Your task to perform on an android device: Look up the best rated gaming chairs on Target. Image 0: 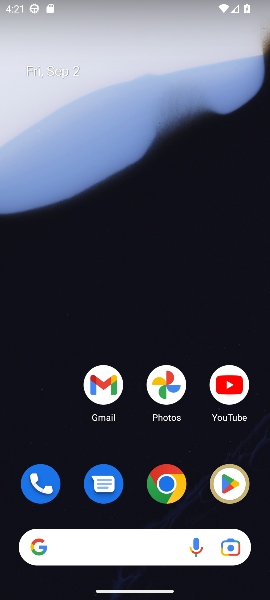
Step 0: click (161, 484)
Your task to perform on an android device: Look up the best rated gaming chairs on Target. Image 1: 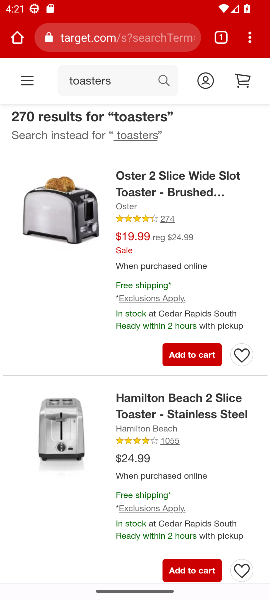
Step 1: click (147, 36)
Your task to perform on an android device: Look up the best rated gaming chairs on Target. Image 2: 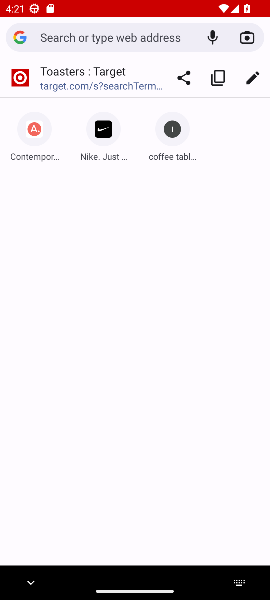
Step 2: press back button
Your task to perform on an android device: Look up the best rated gaming chairs on Target. Image 3: 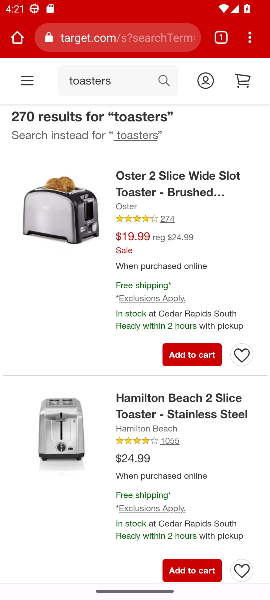
Step 3: click (161, 80)
Your task to perform on an android device: Look up the best rated gaming chairs on Target. Image 4: 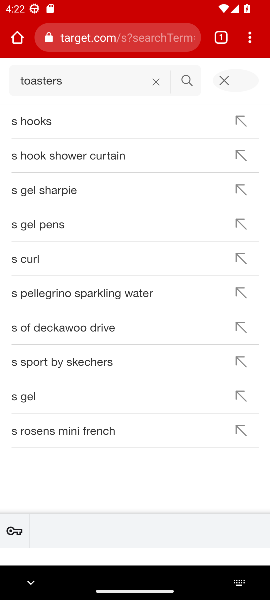
Step 4: click (153, 79)
Your task to perform on an android device: Look up the best rated gaming chairs on Target. Image 5: 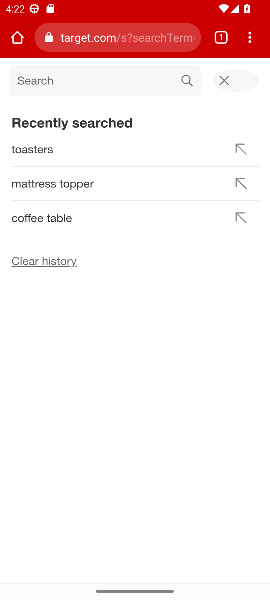
Step 5: click (124, 79)
Your task to perform on an android device: Look up the best rated gaming chairs on Target. Image 6: 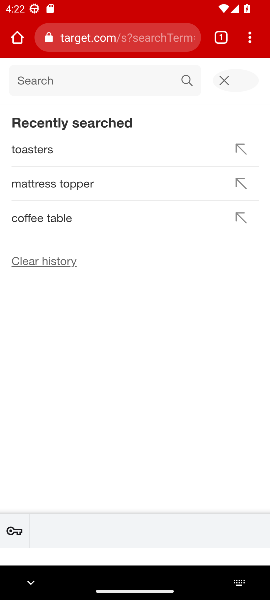
Step 6: type " gaming chairs"
Your task to perform on an android device: Look up the best rated gaming chairs on Target. Image 7: 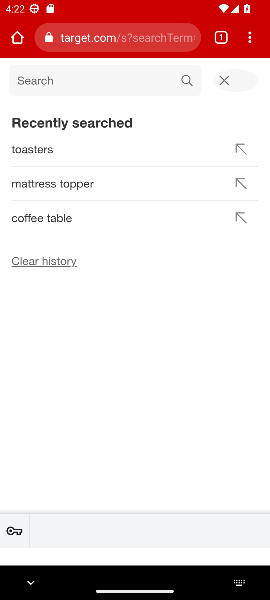
Step 7: press enter
Your task to perform on an android device: Look up the best rated gaming chairs on Target. Image 8: 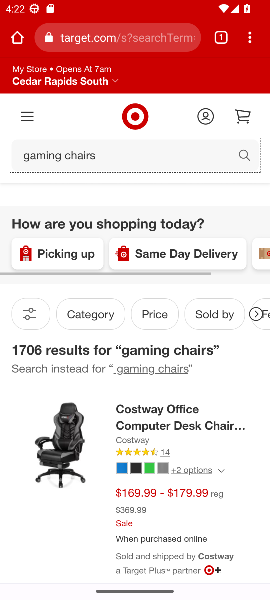
Step 8: task complete